Your task to perform on an android device: Empty the shopping cart on bestbuy. Search for macbook pro on bestbuy, select the first entry, add it to the cart, then select checkout. Image 0: 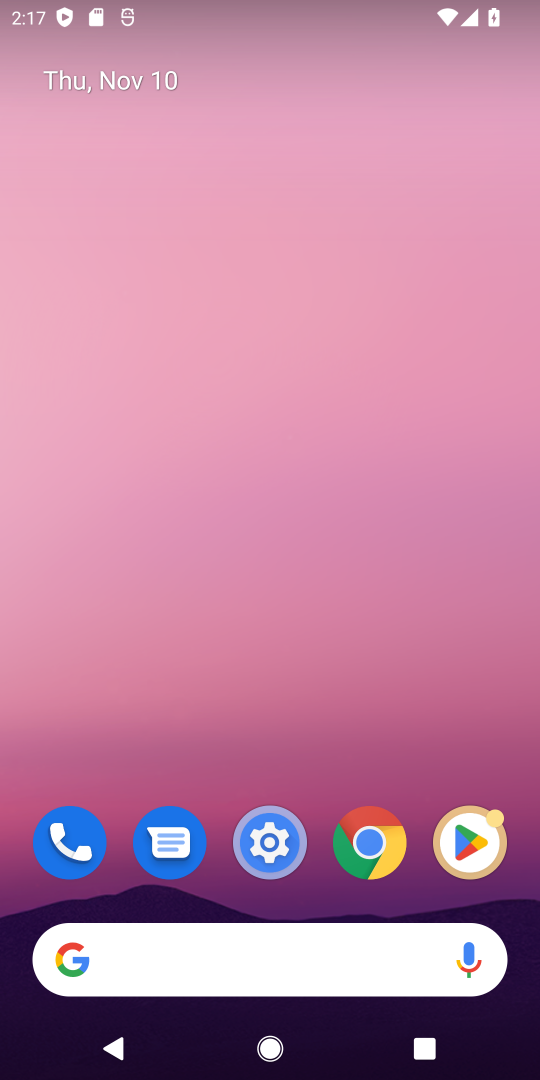
Step 0: press home button
Your task to perform on an android device: Empty the shopping cart on bestbuy. Search for macbook pro on bestbuy, select the first entry, add it to the cart, then select checkout. Image 1: 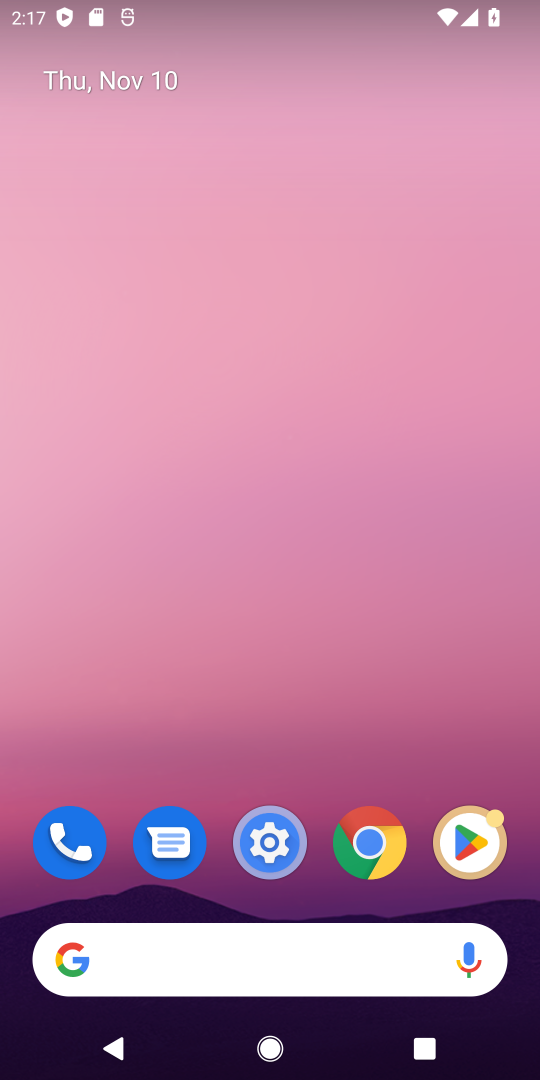
Step 1: click (108, 961)
Your task to perform on an android device: Empty the shopping cart on bestbuy. Search for macbook pro on bestbuy, select the first entry, add it to the cart, then select checkout. Image 2: 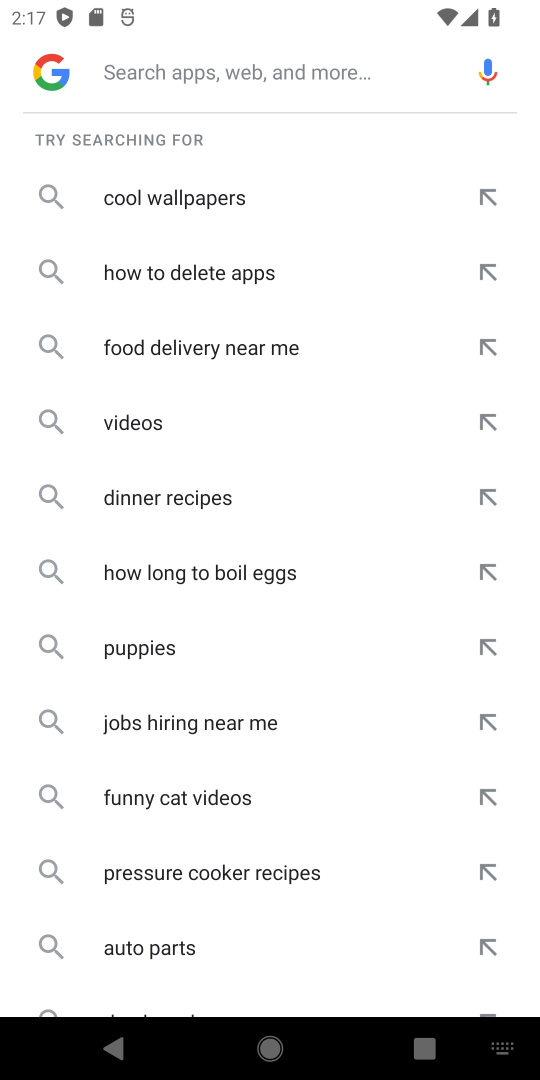
Step 2: press enter
Your task to perform on an android device: Empty the shopping cart on bestbuy. Search for macbook pro on bestbuy, select the first entry, add it to the cart, then select checkout. Image 3: 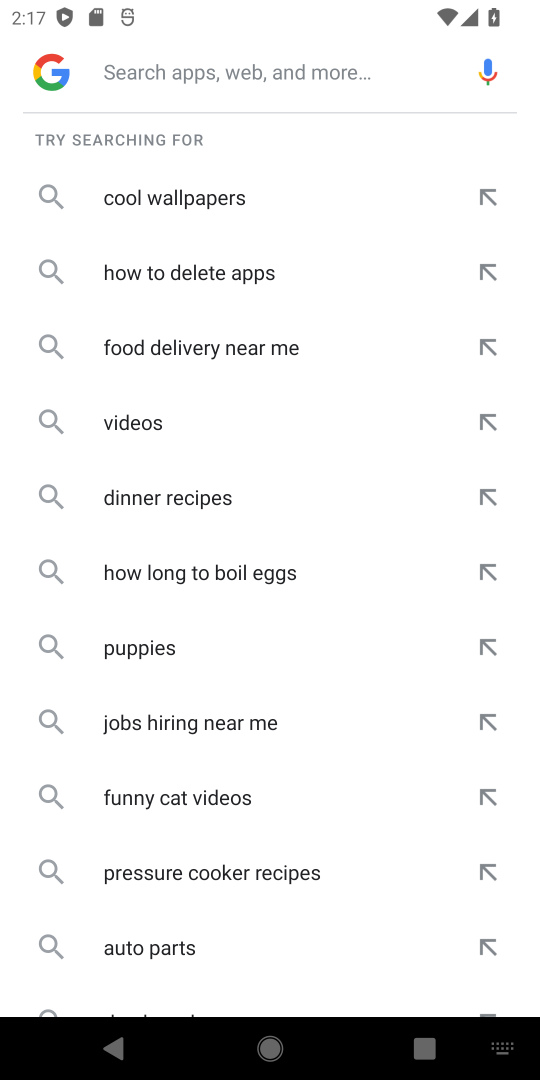
Step 3: type " bestbuy."
Your task to perform on an android device: Empty the shopping cart on bestbuy. Search for macbook pro on bestbuy, select the first entry, add it to the cart, then select checkout. Image 4: 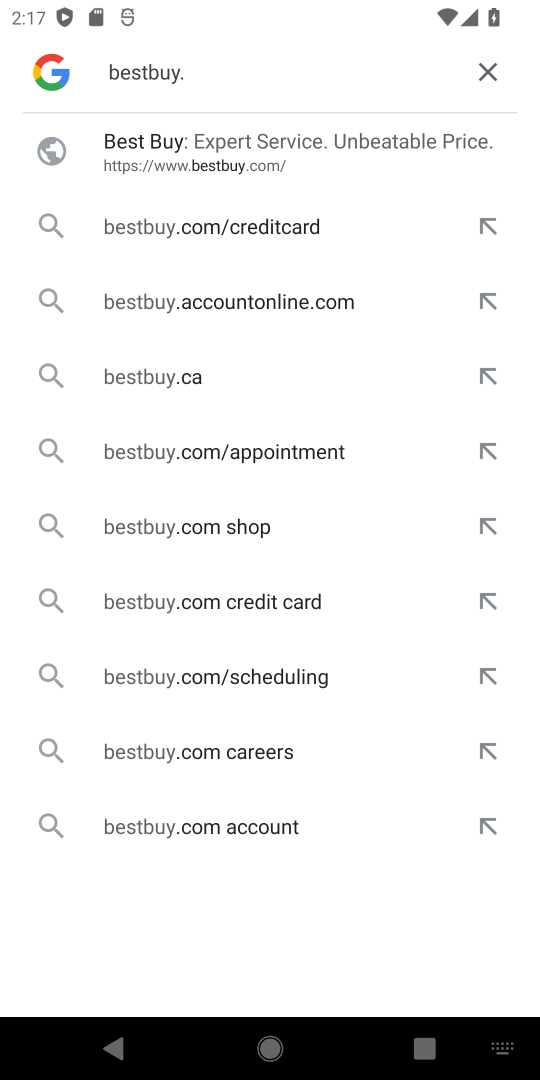
Step 4: press enter
Your task to perform on an android device: Empty the shopping cart on bestbuy. Search for macbook pro on bestbuy, select the first entry, add it to the cart, then select checkout. Image 5: 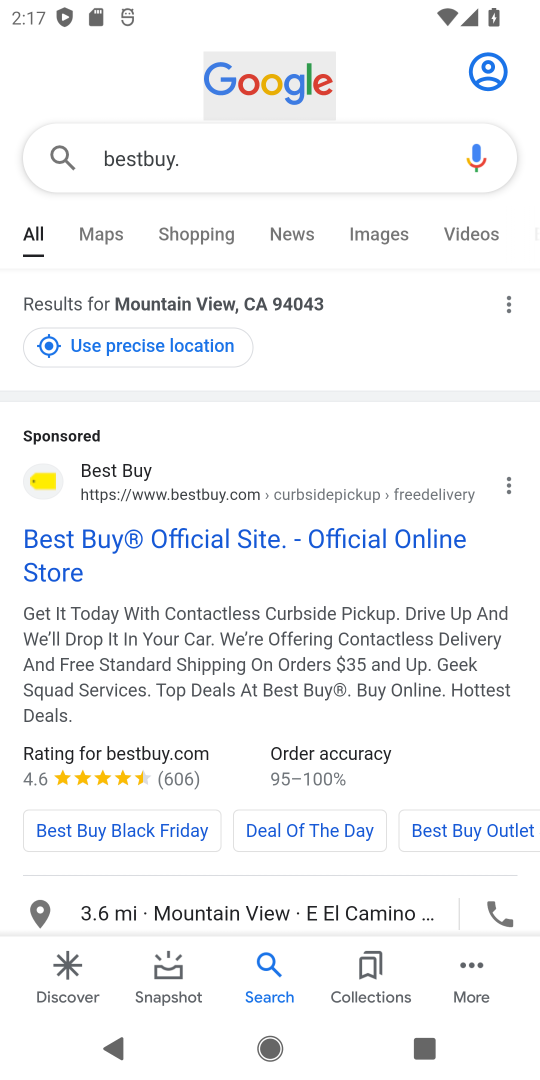
Step 5: click (212, 538)
Your task to perform on an android device: Empty the shopping cart on bestbuy. Search for macbook pro on bestbuy, select the first entry, add it to the cart, then select checkout. Image 6: 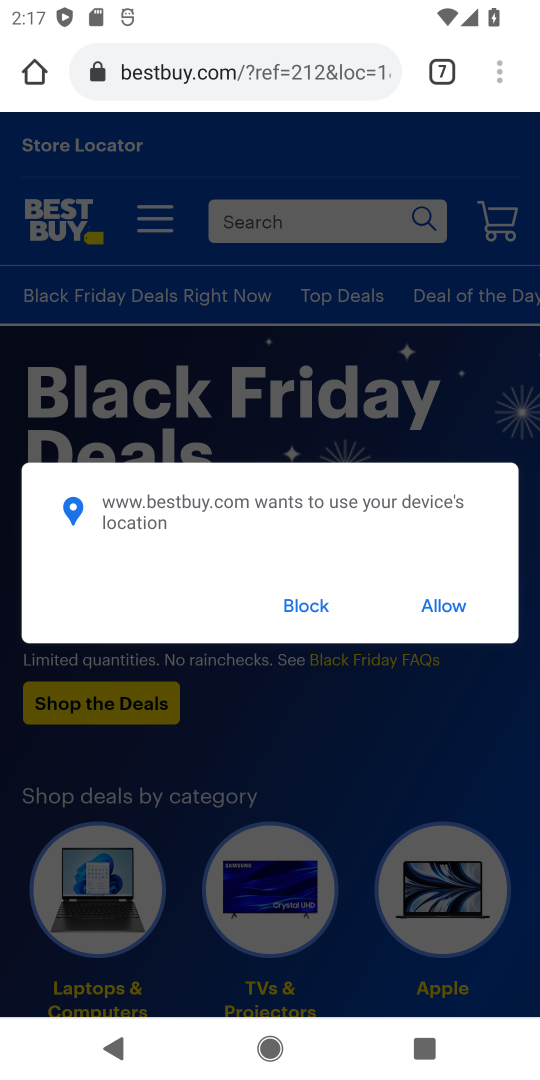
Step 6: click (308, 607)
Your task to perform on an android device: Empty the shopping cart on bestbuy. Search for macbook pro on bestbuy, select the first entry, add it to the cart, then select checkout. Image 7: 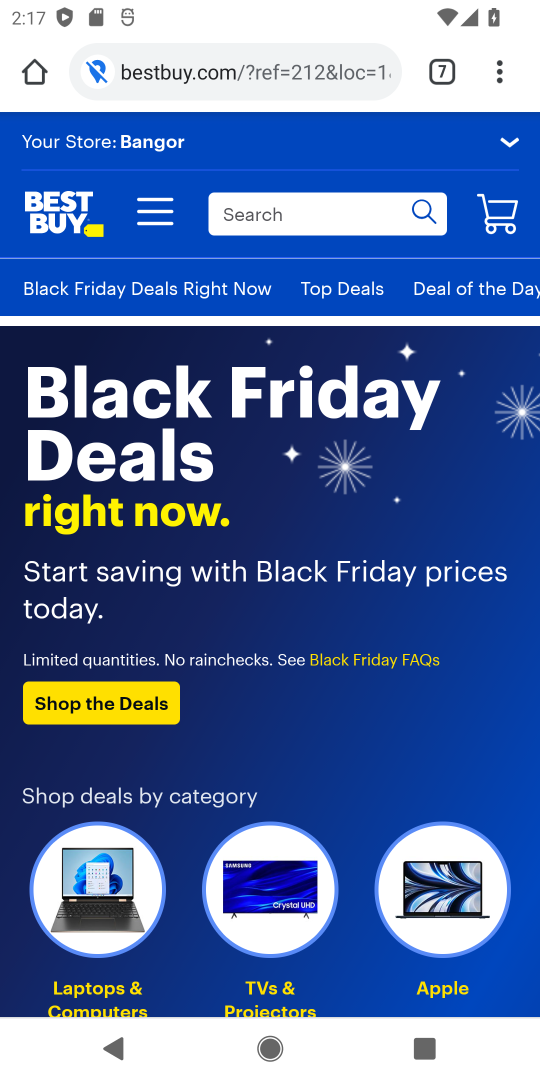
Step 7: click (503, 210)
Your task to perform on an android device: Empty the shopping cart on bestbuy. Search for macbook pro on bestbuy, select the first entry, add it to the cart, then select checkout. Image 8: 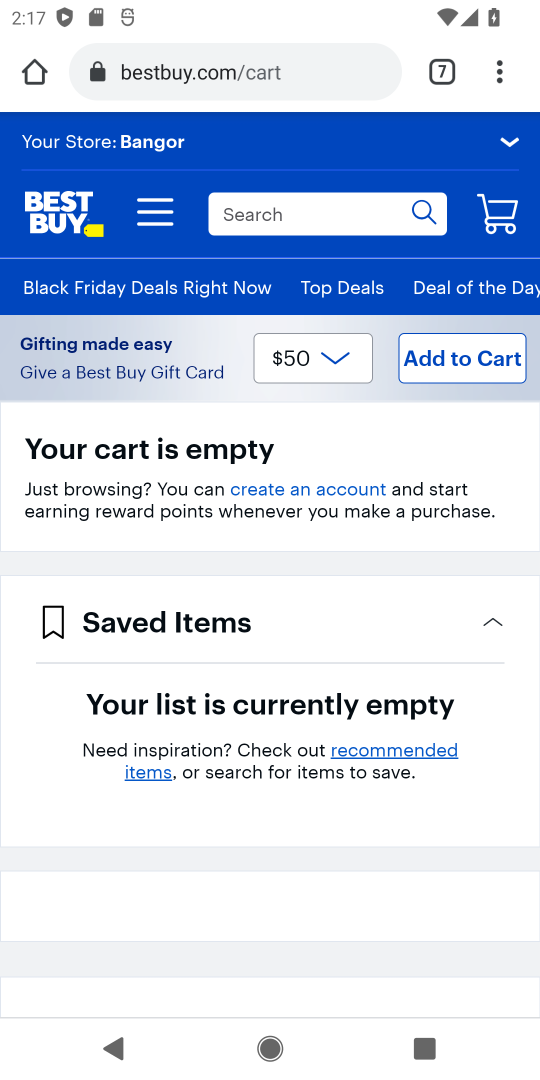
Step 8: click (239, 225)
Your task to perform on an android device: Empty the shopping cart on bestbuy. Search for macbook pro on bestbuy, select the first entry, add it to the cart, then select checkout. Image 9: 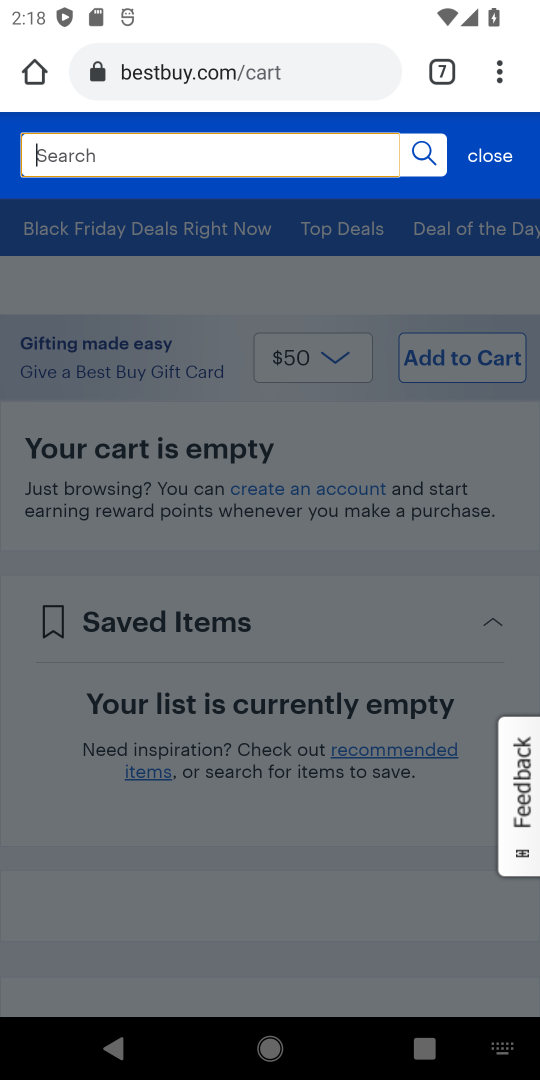
Step 9: press enter
Your task to perform on an android device: Empty the shopping cart on bestbuy. Search for macbook pro on bestbuy, select the first entry, add it to the cart, then select checkout. Image 10: 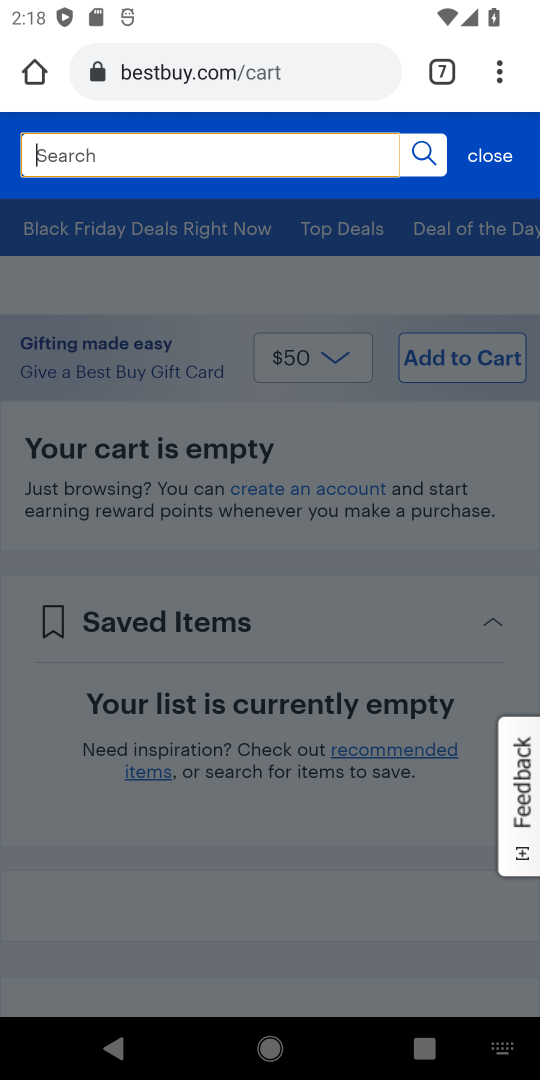
Step 10: type "macbook pro"
Your task to perform on an android device: Empty the shopping cart on bestbuy. Search for macbook pro on bestbuy, select the first entry, add it to the cart, then select checkout. Image 11: 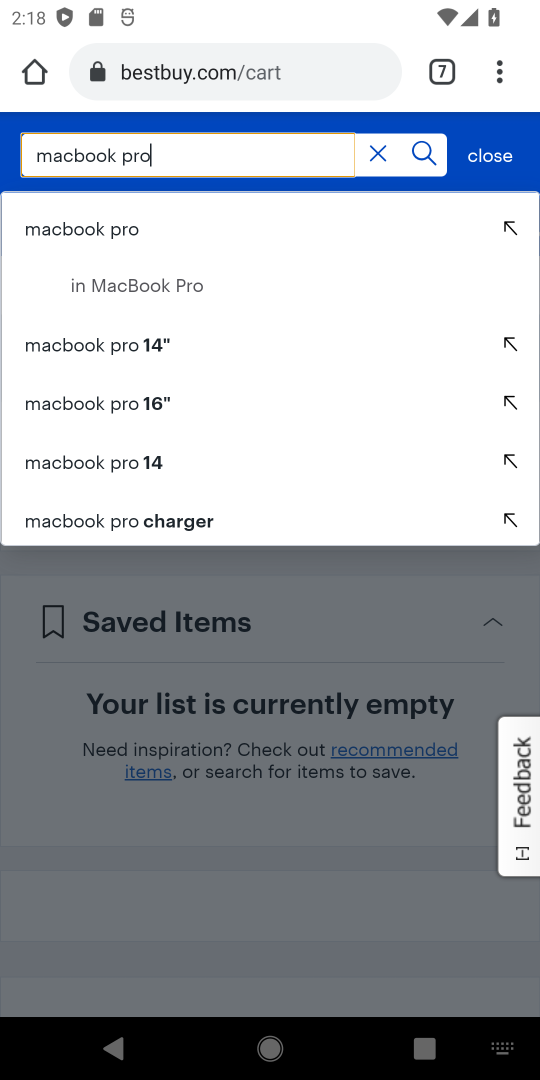
Step 11: press enter
Your task to perform on an android device: Empty the shopping cart on bestbuy. Search for macbook pro on bestbuy, select the first entry, add it to the cart, then select checkout. Image 12: 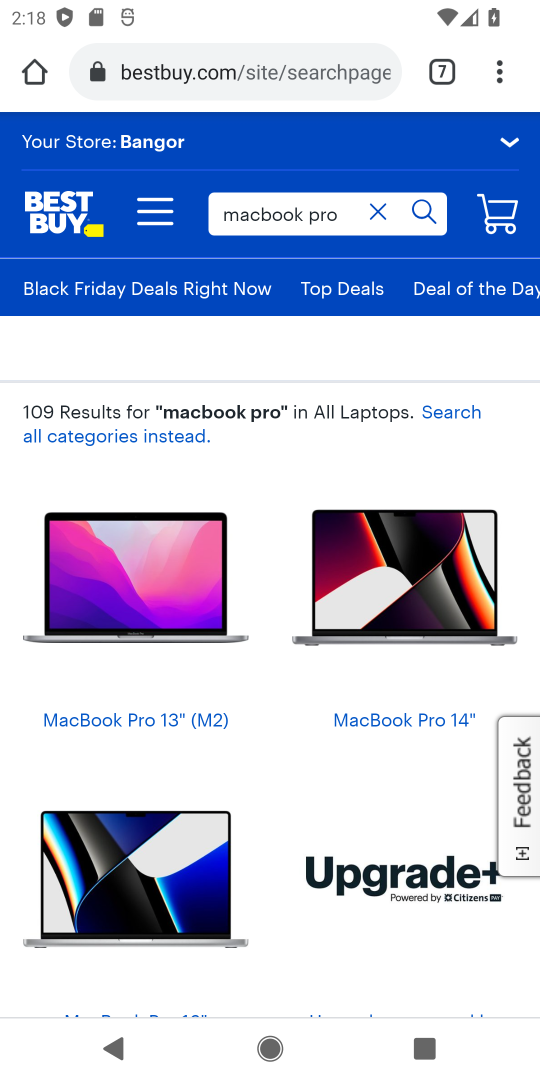
Step 12: click (147, 670)
Your task to perform on an android device: Empty the shopping cart on bestbuy. Search for macbook pro on bestbuy, select the first entry, add it to the cart, then select checkout. Image 13: 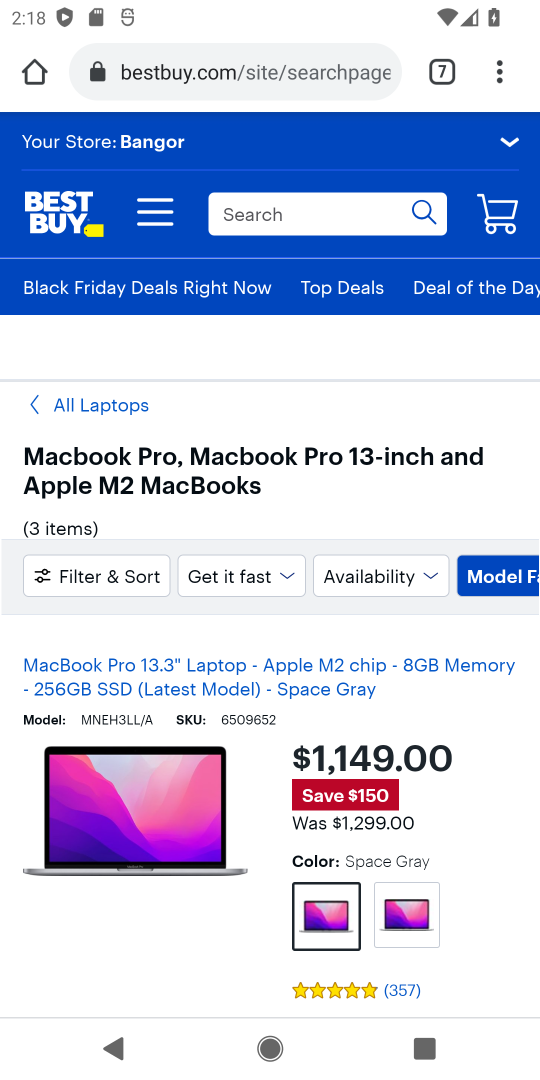
Step 13: drag from (270, 850) to (286, 426)
Your task to perform on an android device: Empty the shopping cart on bestbuy. Search for macbook pro on bestbuy, select the first entry, add it to the cart, then select checkout. Image 14: 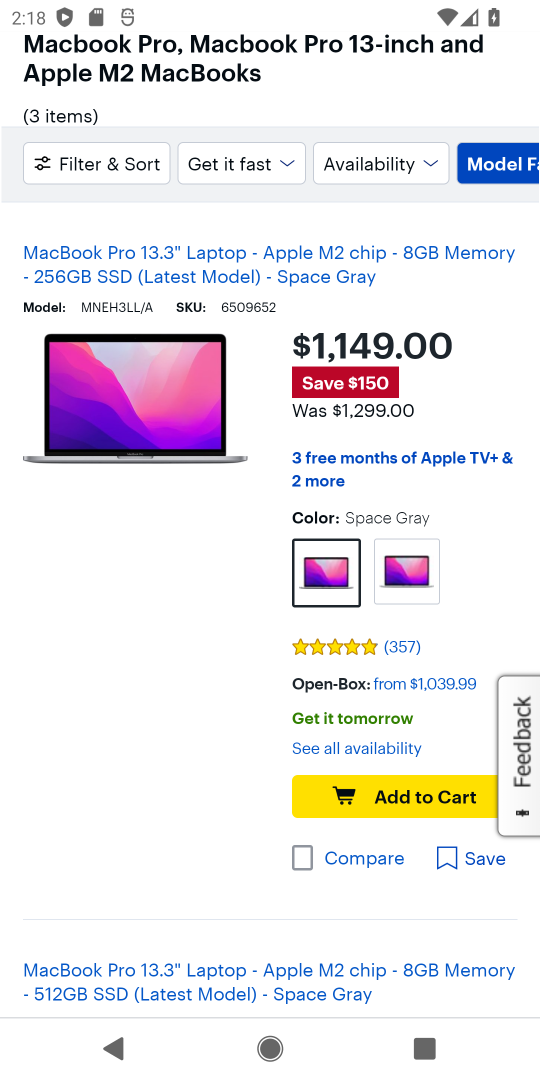
Step 14: click (411, 796)
Your task to perform on an android device: Empty the shopping cart on bestbuy. Search for macbook pro on bestbuy, select the first entry, add it to the cart, then select checkout. Image 15: 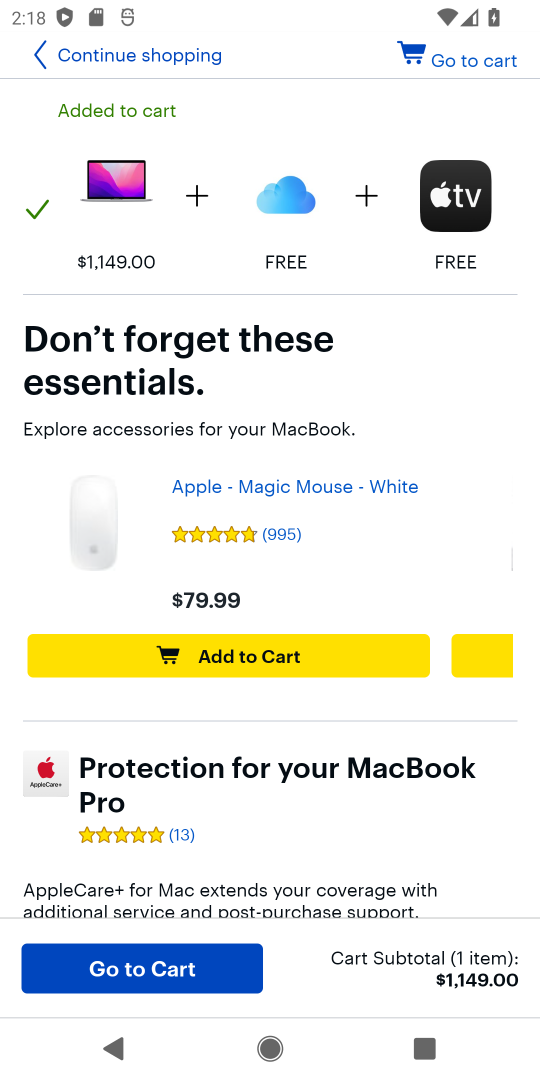
Step 15: task complete